Your task to perform on an android device: remove spam from my inbox in the gmail app Image 0: 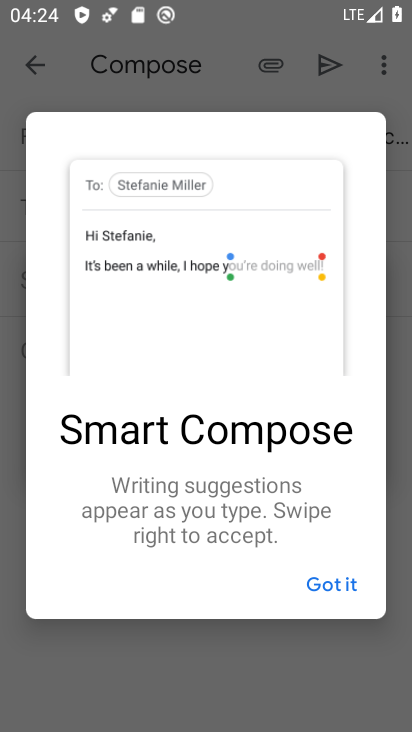
Step 0: press home button
Your task to perform on an android device: remove spam from my inbox in the gmail app Image 1: 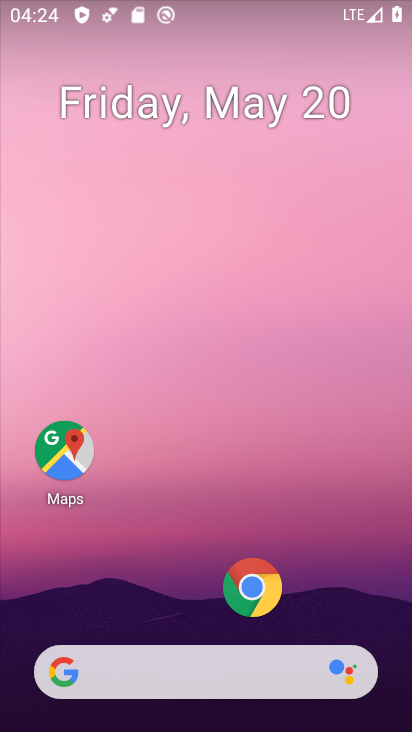
Step 1: drag from (210, 473) to (205, 130)
Your task to perform on an android device: remove spam from my inbox in the gmail app Image 2: 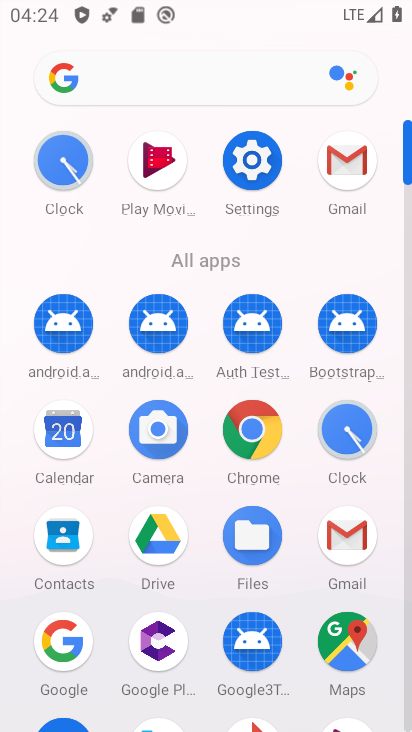
Step 2: click (339, 159)
Your task to perform on an android device: remove spam from my inbox in the gmail app Image 3: 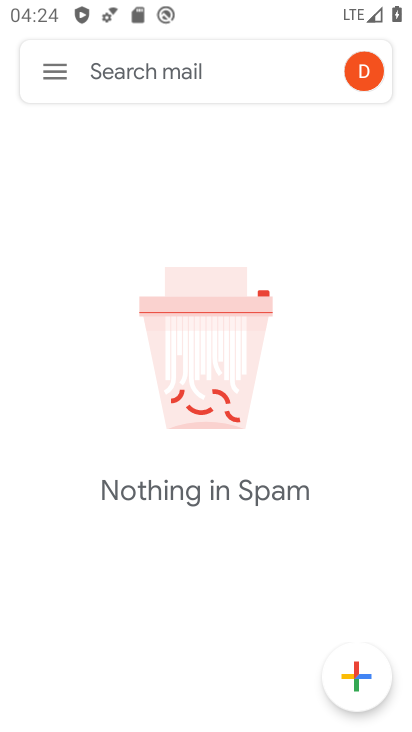
Step 3: click (56, 69)
Your task to perform on an android device: remove spam from my inbox in the gmail app Image 4: 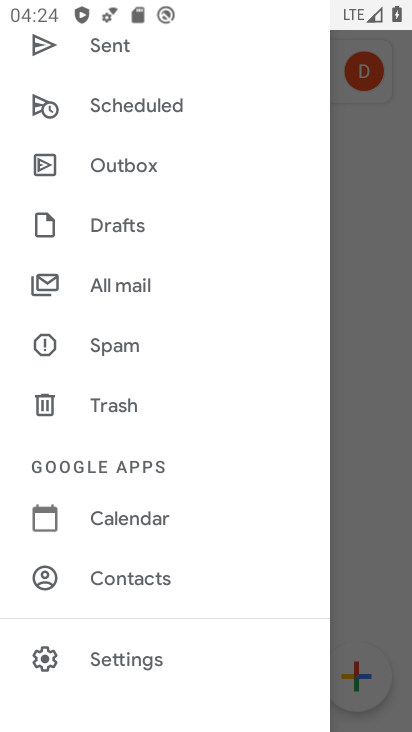
Step 4: click (156, 356)
Your task to perform on an android device: remove spam from my inbox in the gmail app Image 5: 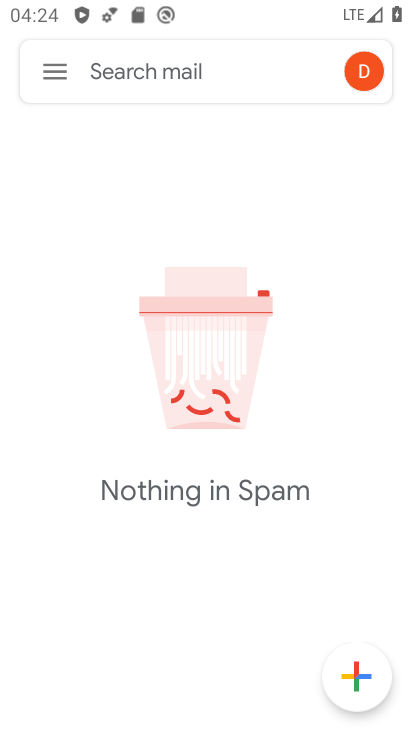
Step 5: task complete